Your task to perform on an android device: change alarm snooze length Image 0: 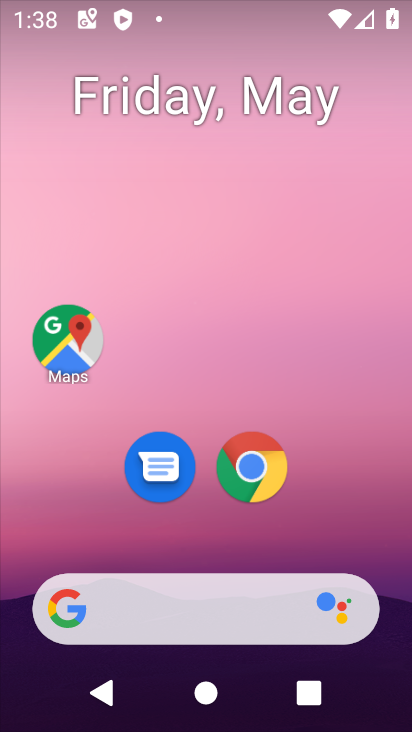
Step 0: drag from (352, 523) to (322, 185)
Your task to perform on an android device: change alarm snooze length Image 1: 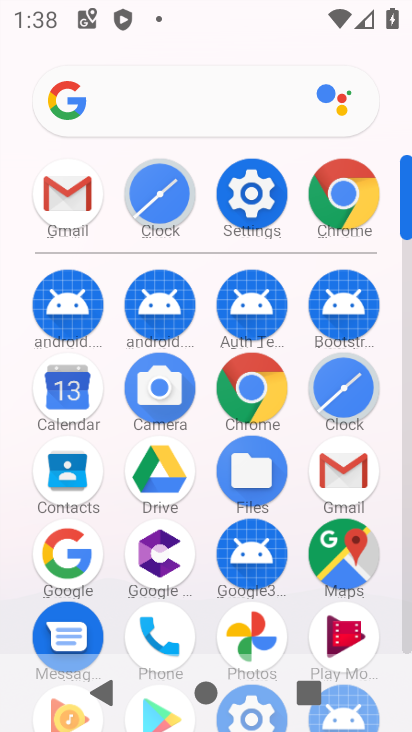
Step 1: click (352, 389)
Your task to perform on an android device: change alarm snooze length Image 2: 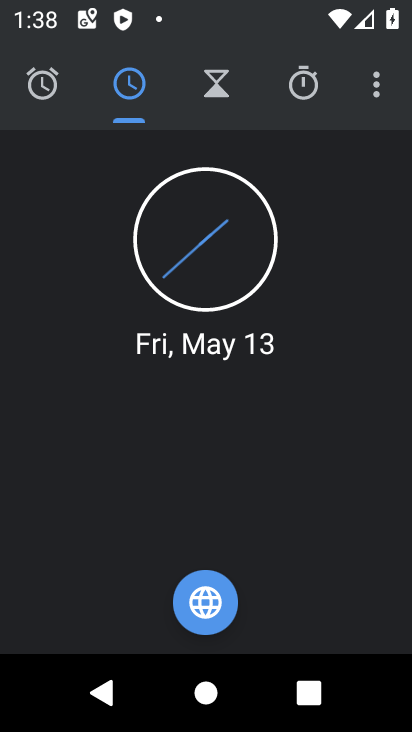
Step 2: click (376, 89)
Your task to perform on an android device: change alarm snooze length Image 3: 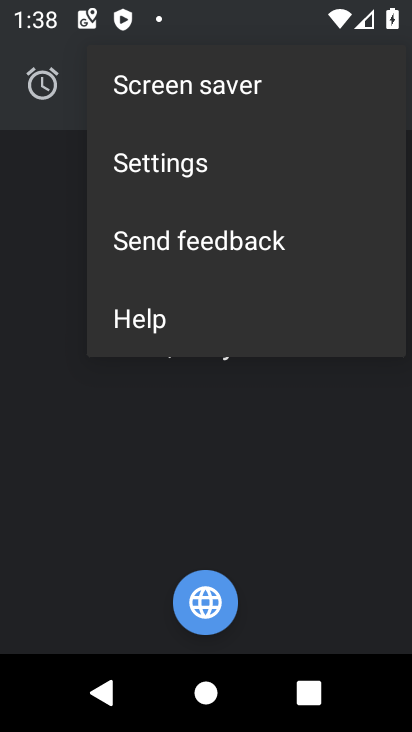
Step 3: click (146, 164)
Your task to perform on an android device: change alarm snooze length Image 4: 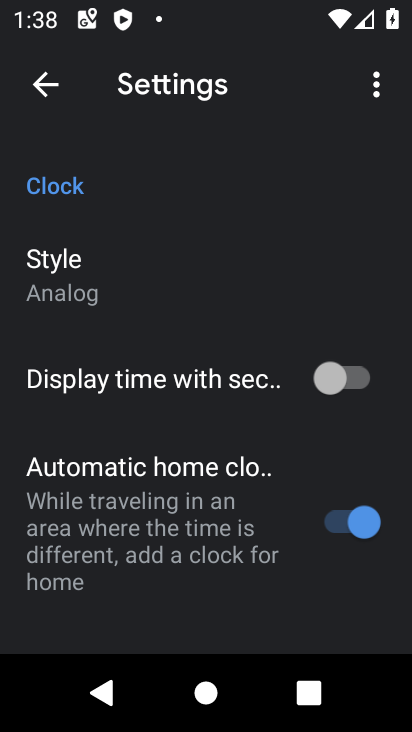
Step 4: drag from (119, 347) to (153, 112)
Your task to perform on an android device: change alarm snooze length Image 5: 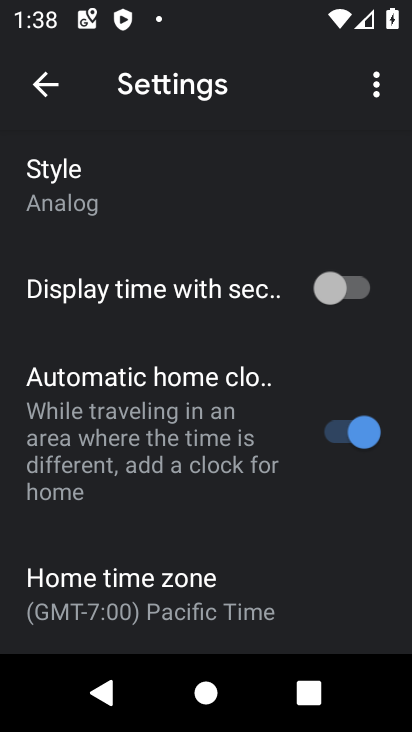
Step 5: drag from (172, 535) to (170, 163)
Your task to perform on an android device: change alarm snooze length Image 6: 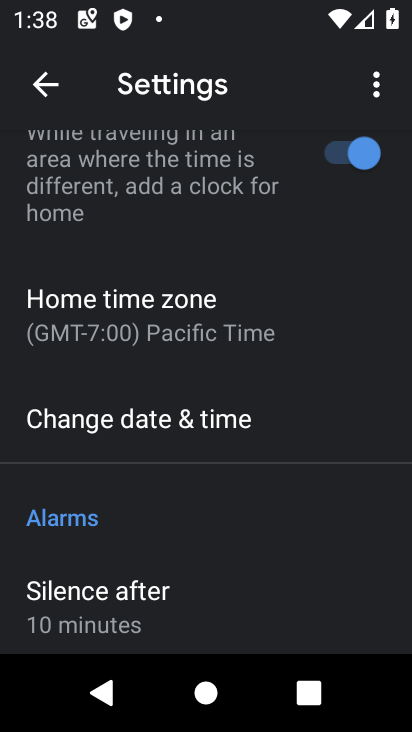
Step 6: drag from (132, 548) to (171, 198)
Your task to perform on an android device: change alarm snooze length Image 7: 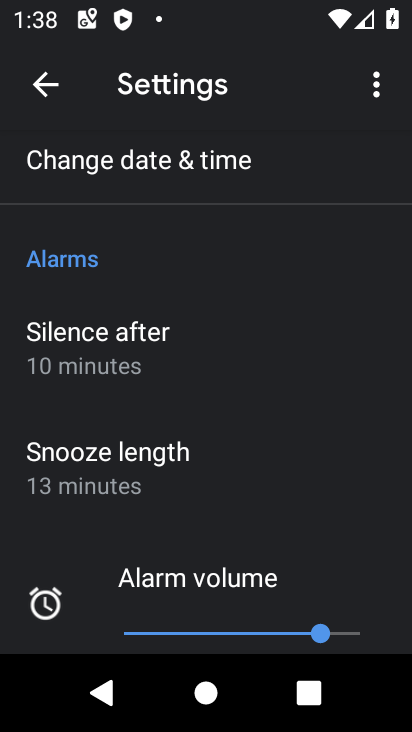
Step 7: click (108, 475)
Your task to perform on an android device: change alarm snooze length Image 8: 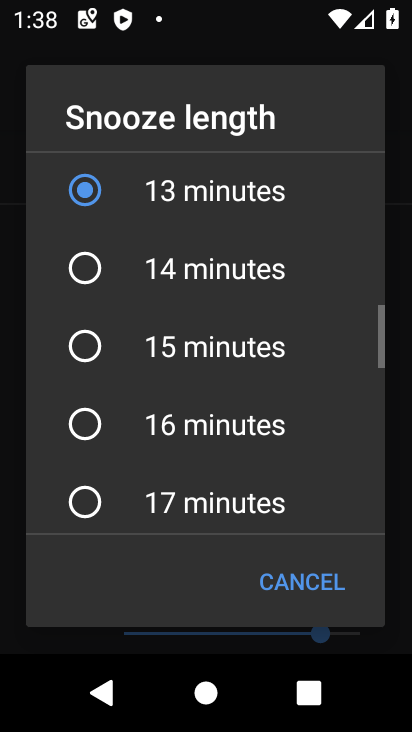
Step 8: click (155, 351)
Your task to perform on an android device: change alarm snooze length Image 9: 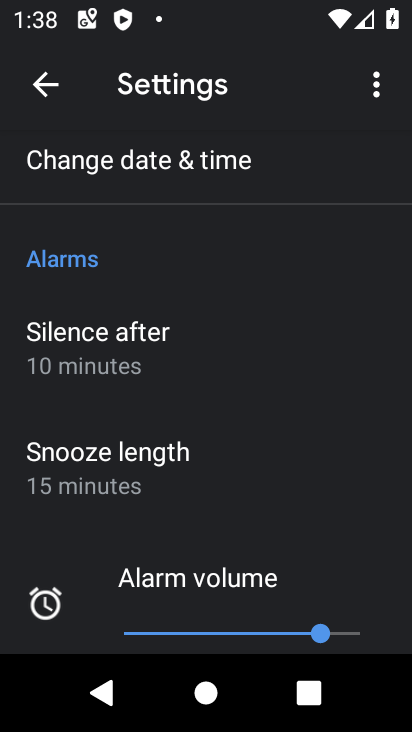
Step 9: task complete